Your task to perform on an android device: Open the map Image 0: 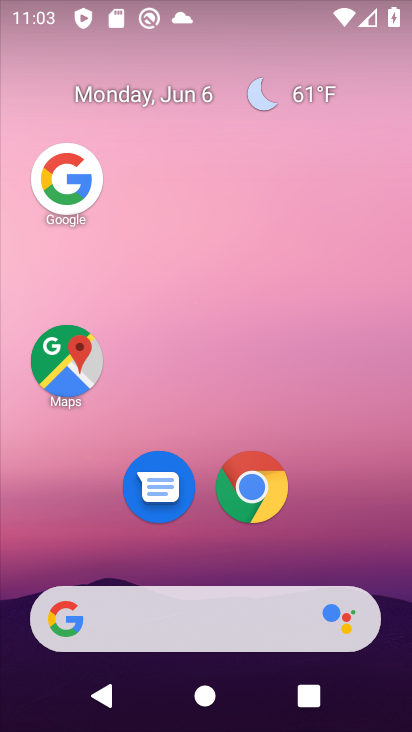
Step 0: click (80, 364)
Your task to perform on an android device: Open the map Image 1: 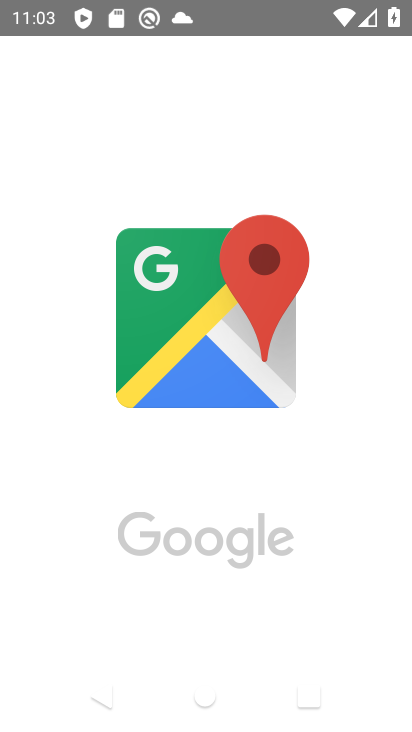
Step 1: task complete